Your task to perform on an android device: turn pop-ups off in chrome Image 0: 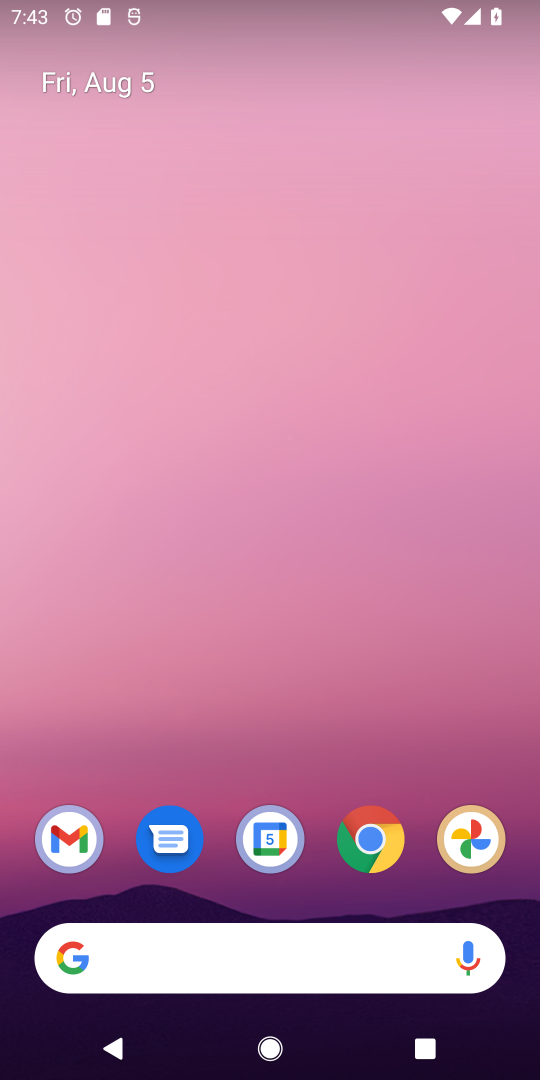
Step 0: click (392, 844)
Your task to perform on an android device: turn pop-ups off in chrome Image 1: 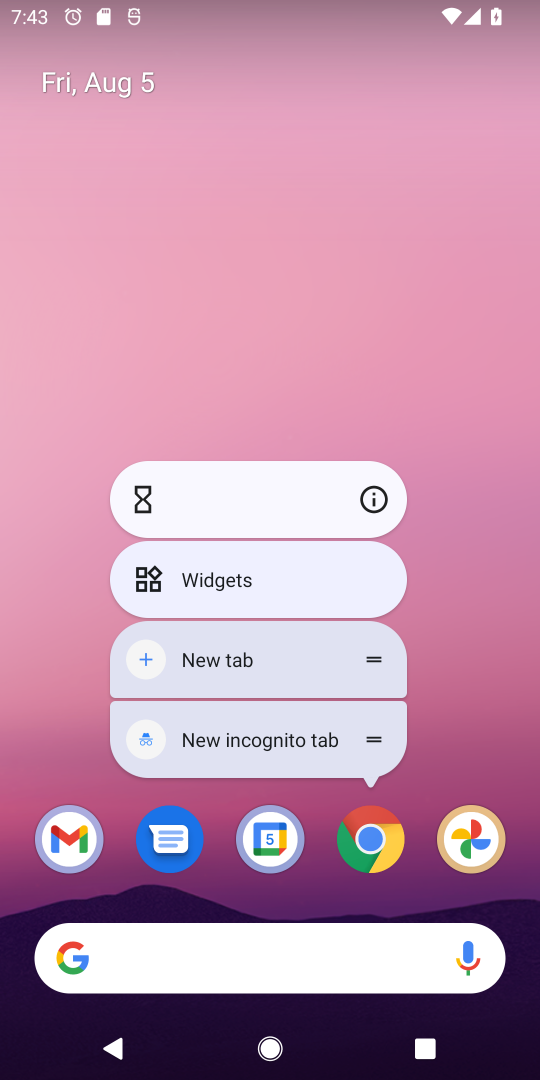
Step 1: click (392, 844)
Your task to perform on an android device: turn pop-ups off in chrome Image 2: 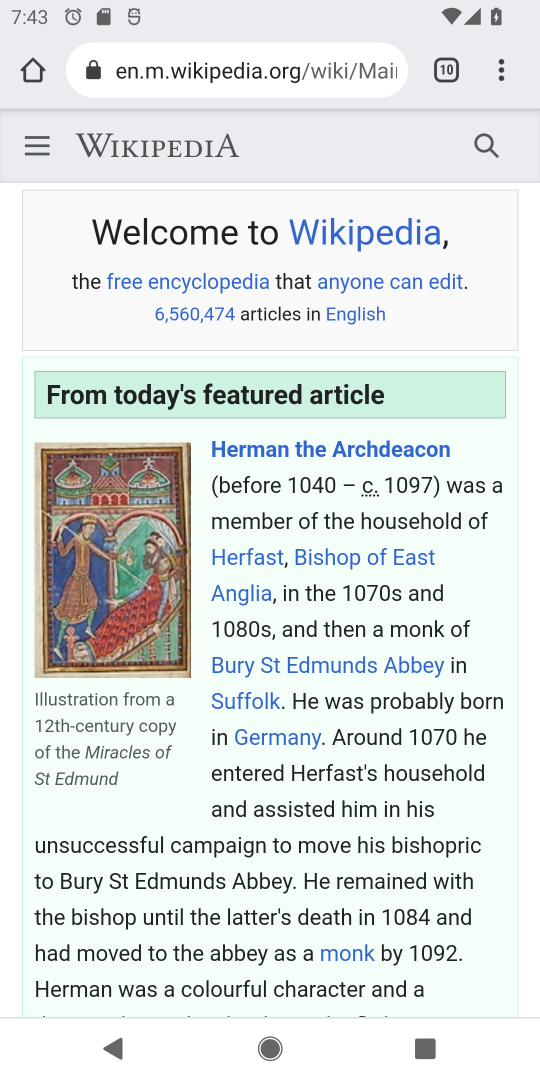
Step 2: click (503, 85)
Your task to perform on an android device: turn pop-ups off in chrome Image 3: 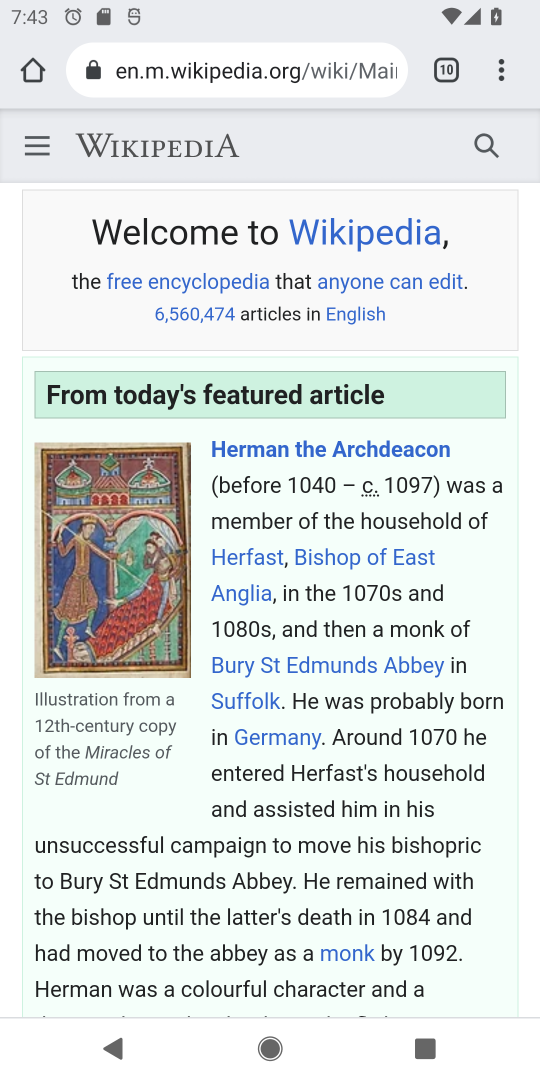
Step 3: drag from (503, 85) to (334, 835)
Your task to perform on an android device: turn pop-ups off in chrome Image 4: 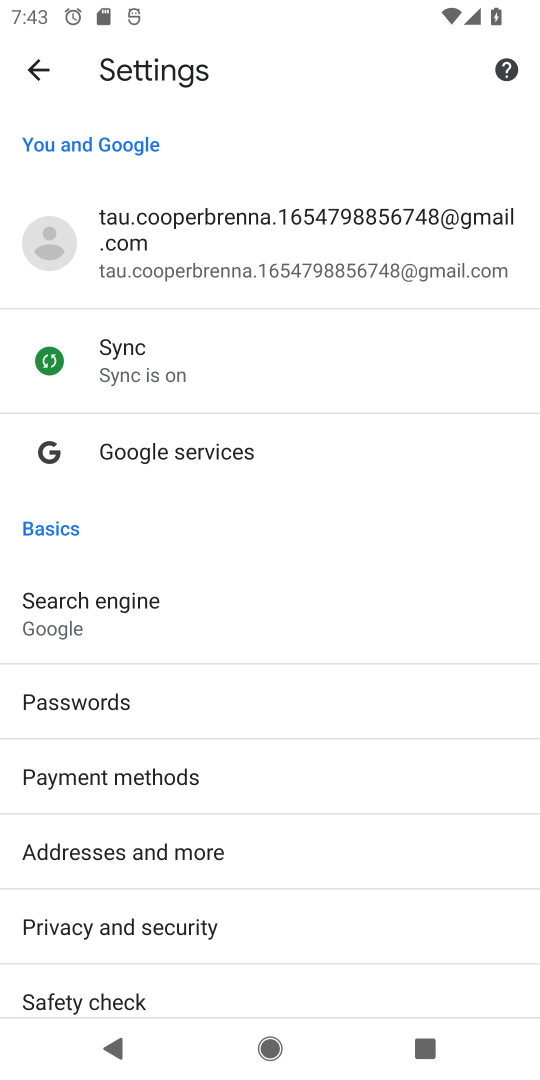
Step 4: drag from (206, 934) to (230, 512)
Your task to perform on an android device: turn pop-ups off in chrome Image 5: 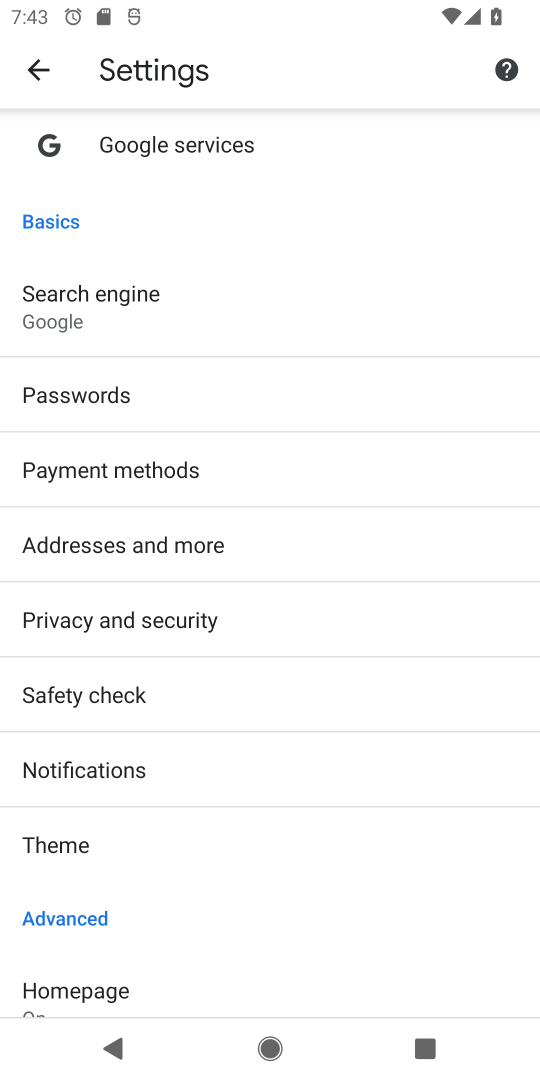
Step 5: drag from (237, 851) to (298, 476)
Your task to perform on an android device: turn pop-ups off in chrome Image 6: 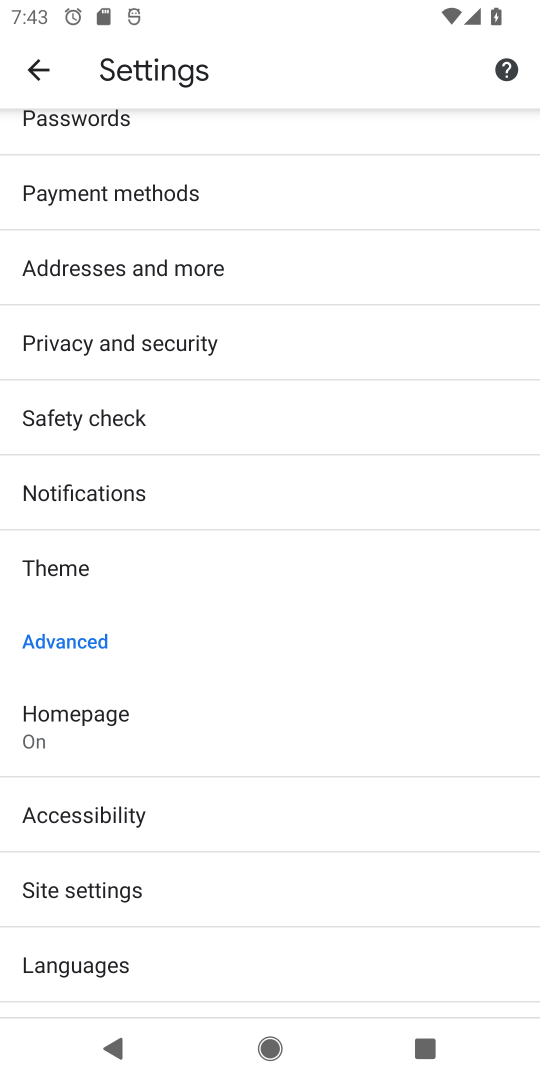
Step 6: click (209, 882)
Your task to perform on an android device: turn pop-ups off in chrome Image 7: 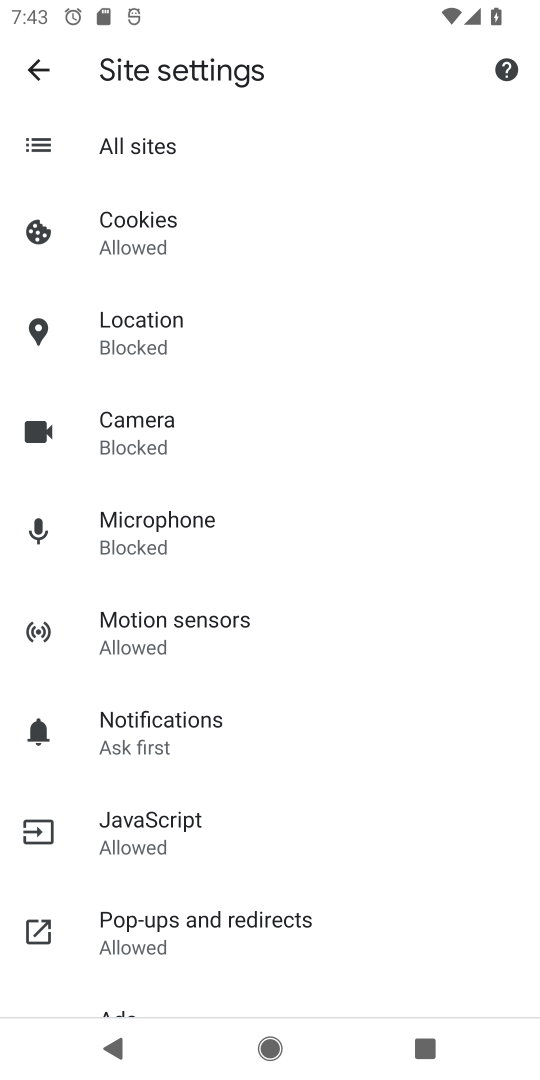
Step 7: click (225, 910)
Your task to perform on an android device: turn pop-ups off in chrome Image 8: 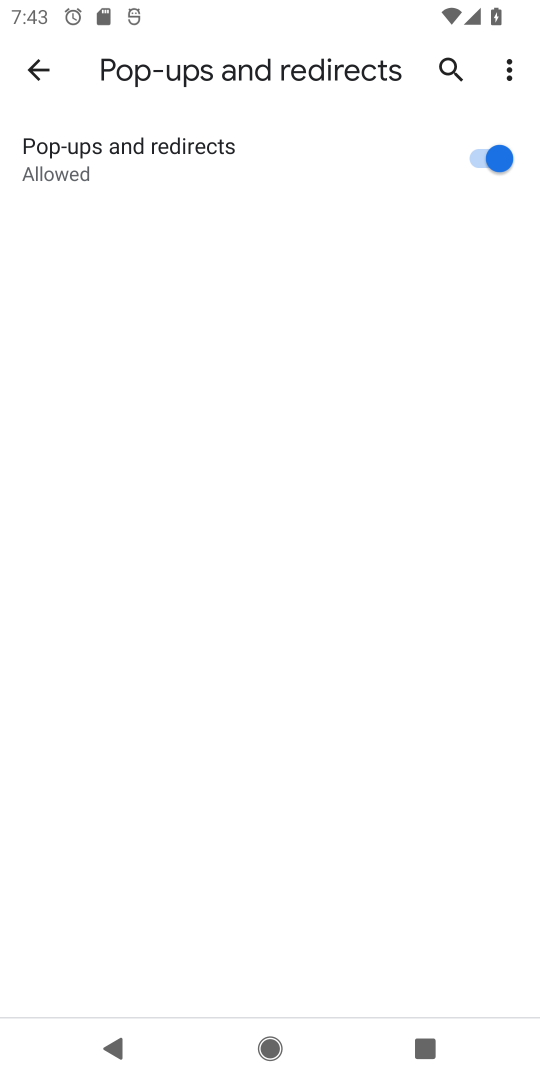
Step 8: click (468, 167)
Your task to perform on an android device: turn pop-ups off in chrome Image 9: 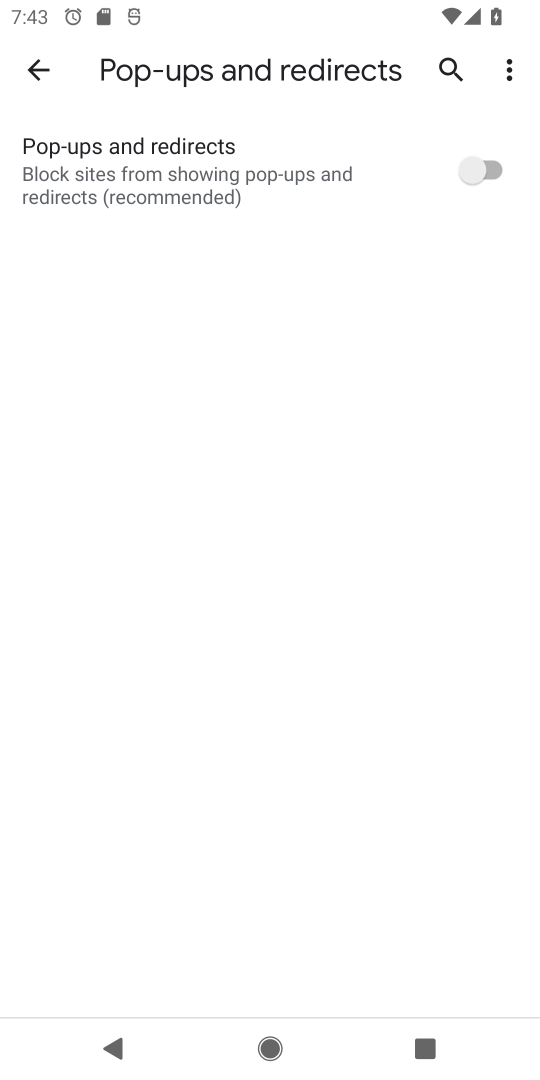
Step 9: task complete